Your task to perform on an android device: change text size in settings app Image 0: 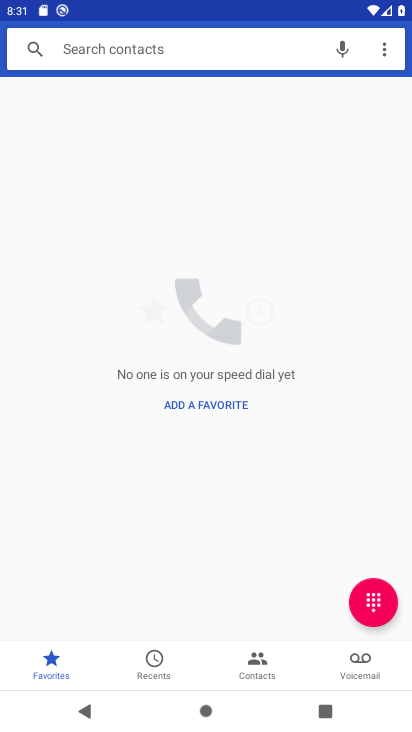
Step 0: press home button
Your task to perform on an android device: change text size in settings app Image 1: 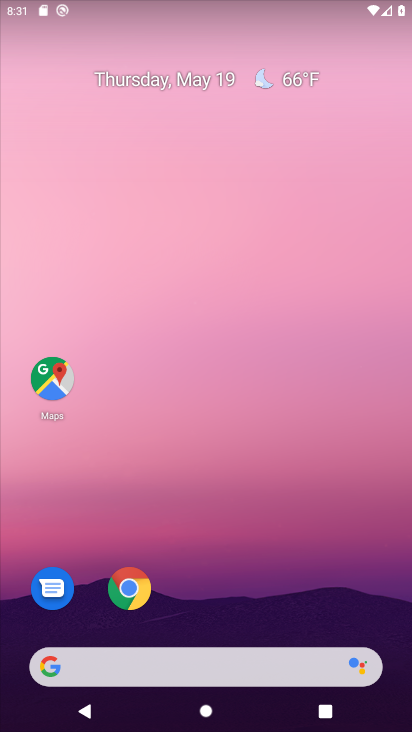
Step 1: drag from (379, 578) to (376, 134)
Your task to perform on an android device: change text size in settings app Image 2: 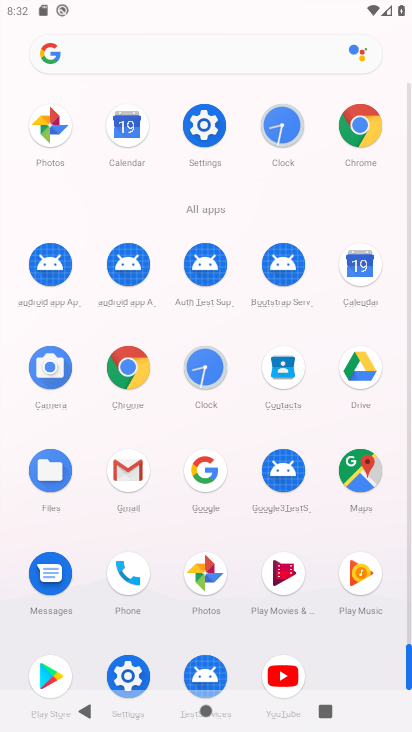
Step 2: click (203, 132)
Your task to perform on an android device: change text size in settings app Image 3: 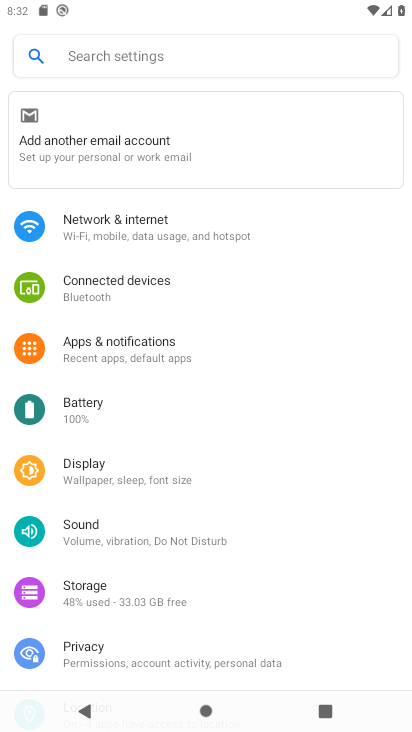
Step 3: drag from (316, 547) to (308, 399)
Your task to perform on an android device: change text size in settings app Image 4: 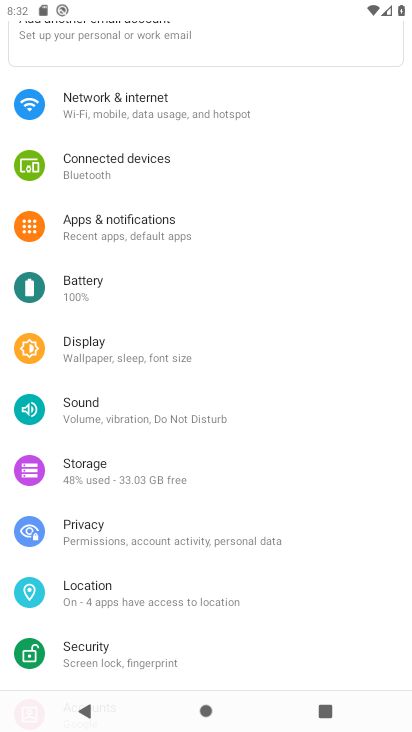
Step 4: drag from (333, 574) to (321, 449)
Your task to perform on an android device: change text size in settings app Image 5: 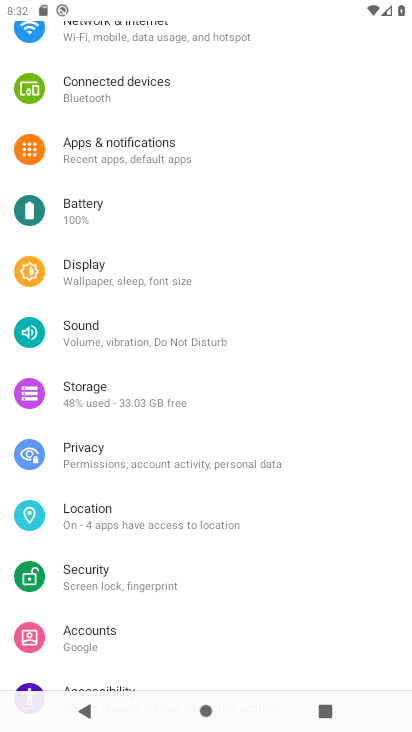
Step 5: drag from (336, 612) to (339, 534)
Your task to perform on an android device: change text size in settings app Image 6: 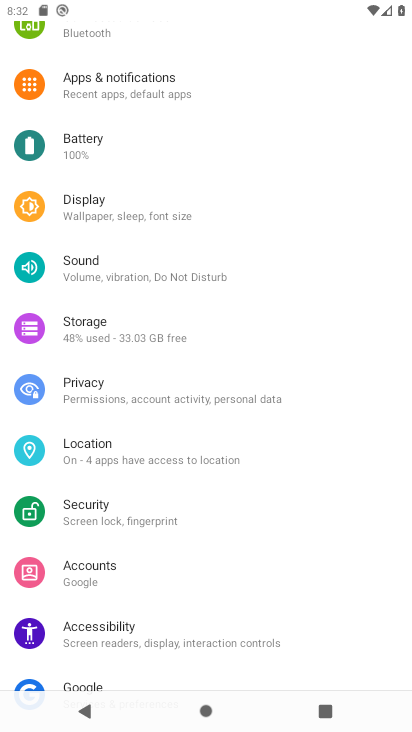
Step 6: drag from (335, 571) to (339, 438)
Your task to perform on an android device: change text size in settings app Image 7: 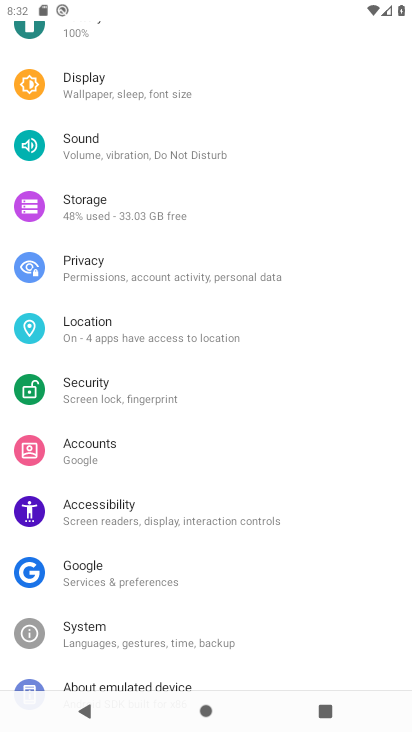
Step 7: drag from (338, 577) to (348, 422)
Your task to perform on an android device: change text size in settings app Image 8: 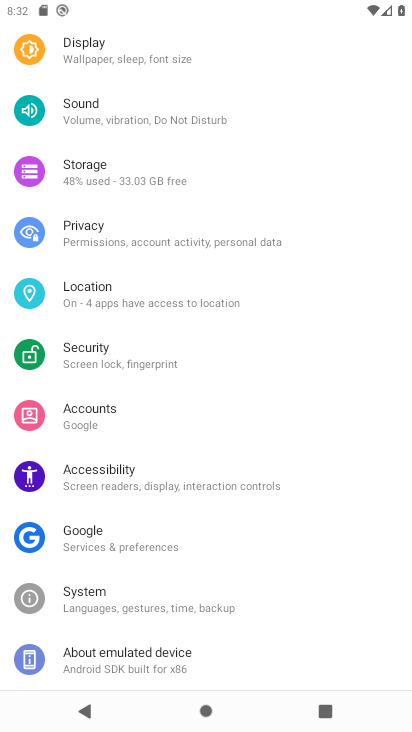
Step 8: drag from (350, 255) to (333, 392)
Your task to perform on an android device: change text size in settings app Image 9: 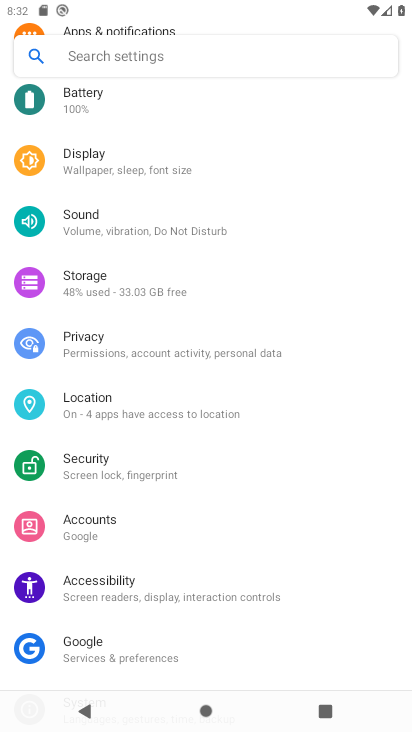
Step 9: drag from (333, 268) to (335, 384)
Your task to perform on an android device: change text size in settings app Image 10: 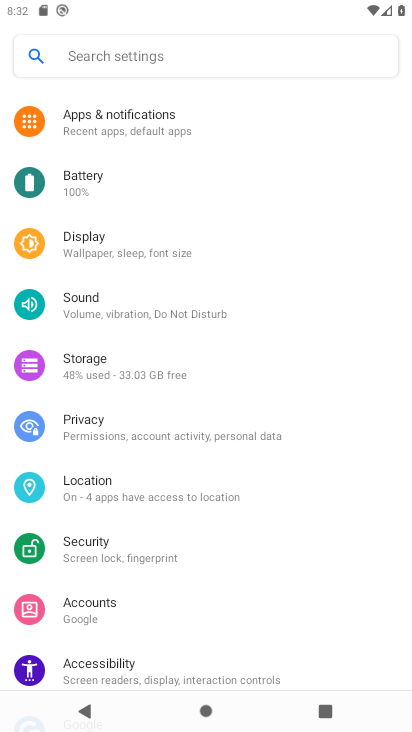
Step 10: drag from (348, 271) to (344, 382)
Your task to perform on an android device: change text size in settings app Image 11: 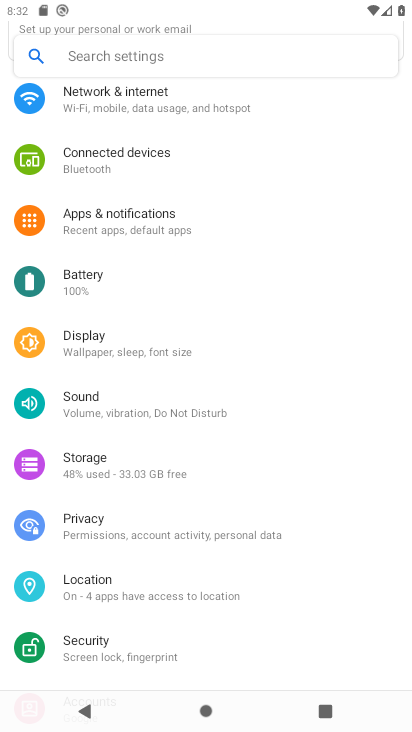
Step 11: click (238, 352)
Your task to perform on an android device: change text size in settings app Image 12: 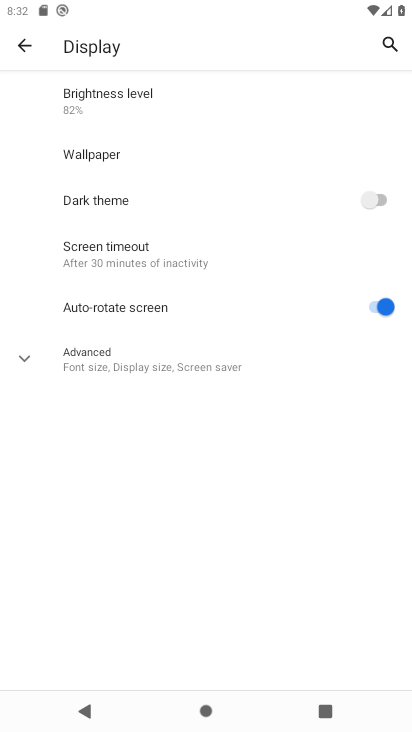
Step 12: click (236, 357)
Your task to perform on an android device: change text size in settings app Image 13: 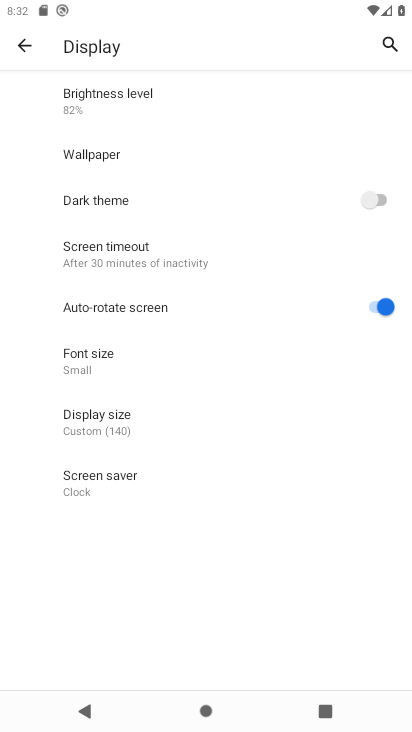
Step 13: click (158, 379)
Your task to perform on an android device: change text size in settings app Image 14: 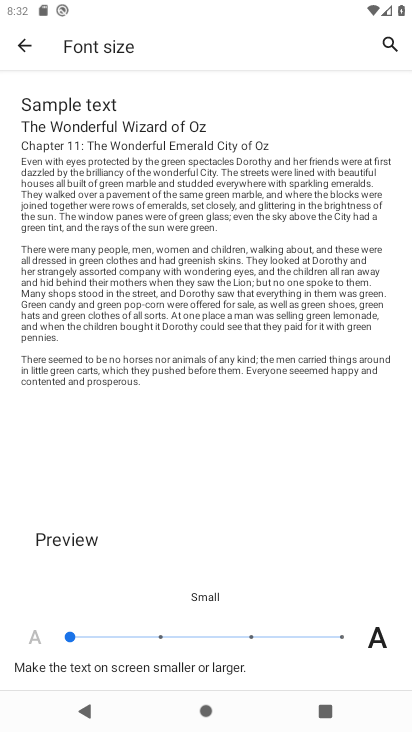
Step 14: click (157, 645)
Your task to perform on an android device: change text size in settings app Image 15: 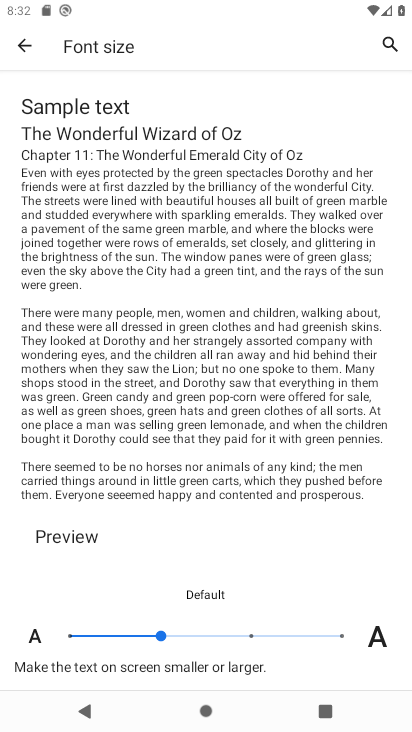
Step 15: task complete